Your task to perform on an android device: Open notification settings Image 0: 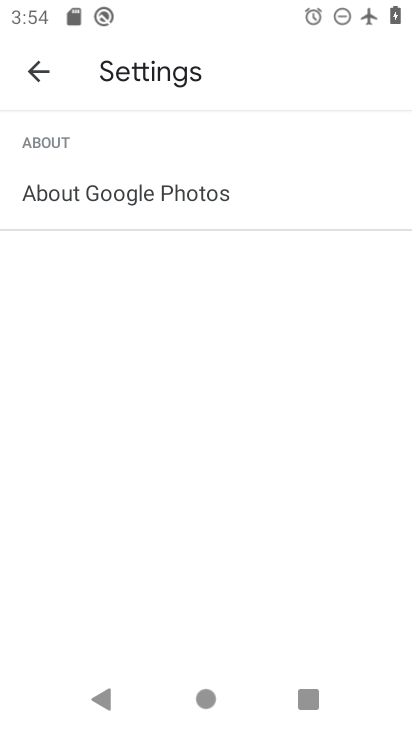
Step 0: press home button
Your task to perform on an android device: Open notification settings Image 1: 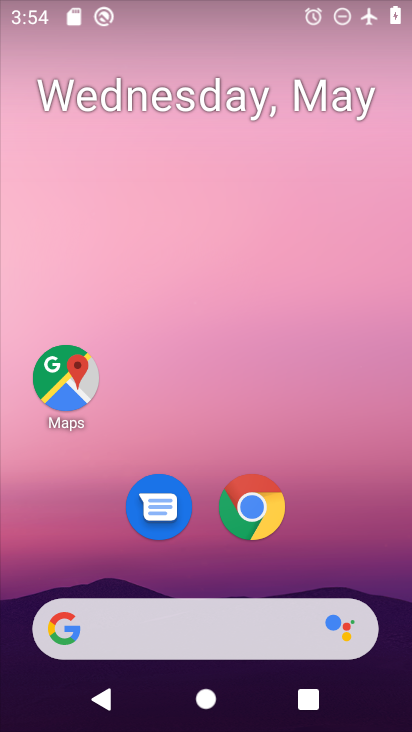
Step 1: drag from (264, 592) to (286, 101)
Your task to perform on an android device: Open notification settings Image 2: 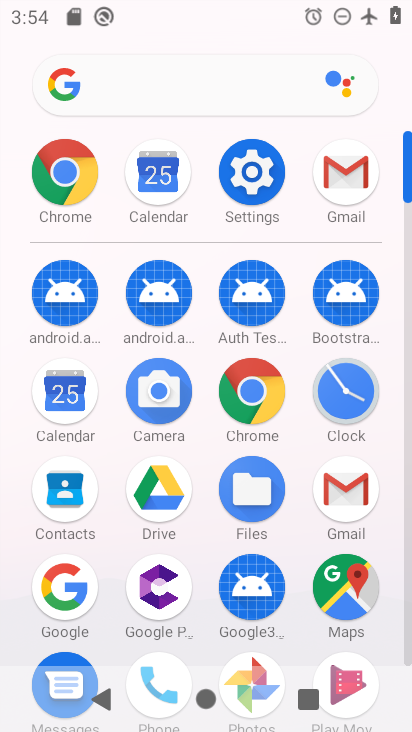
Step 2: click (245, 172)
Your task to perform on an android device: Open notification settings Image 3: 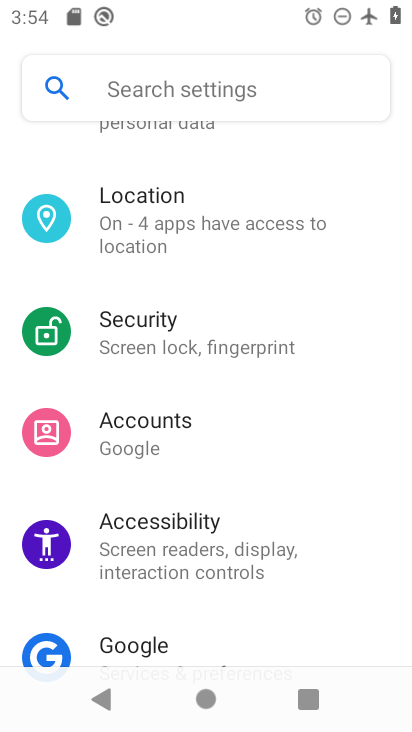
Step 3: drag from (198, 317) to (160, 724)
Your task to perform on an android device: Open notification settings Image 4: 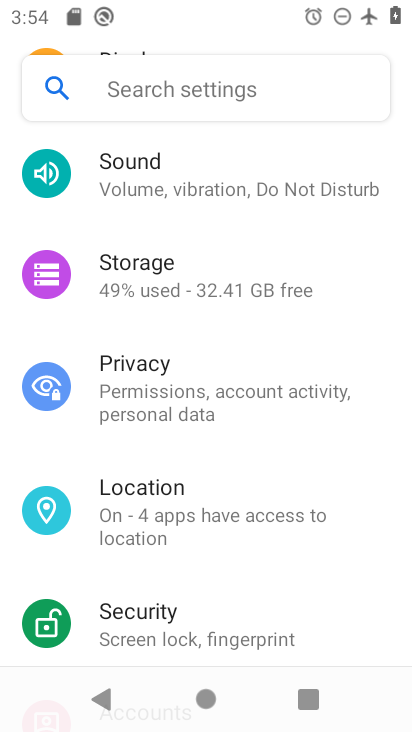
Step 4: drag from (227, 270) to (199, 693)
Your task to perform on an android device: Open notification settings Image 5: 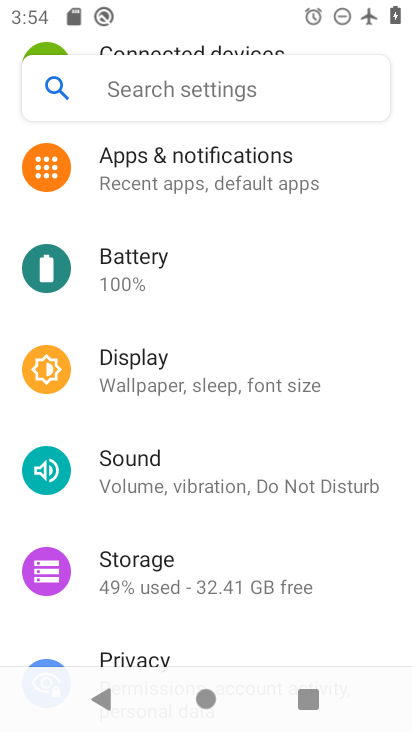
Step 5: click (252, 186)
Your task to perform on an android device: Open notification settings Image 6: 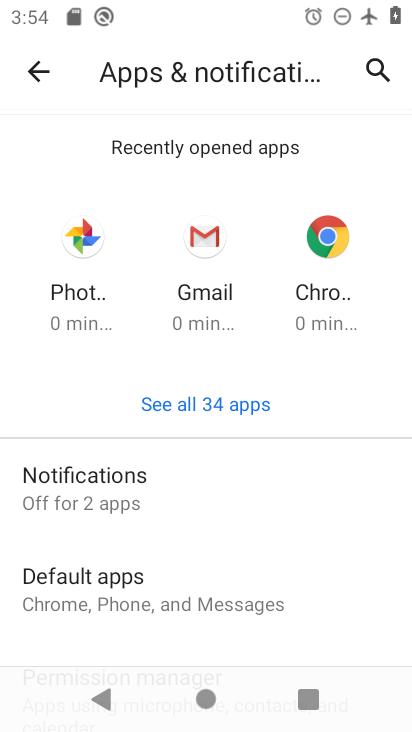
Step 6: click (197, 497)
Your task to perform on an android device: Open notification settings Image 7: 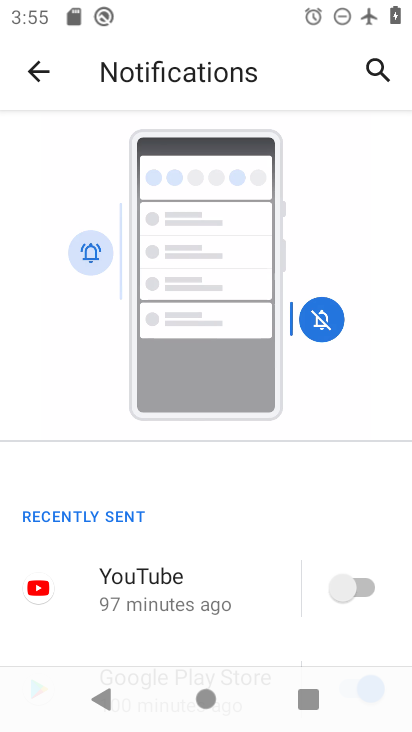
Step 7: task complete